Your task to perform on an android device: empty trash in google photos Image 0: 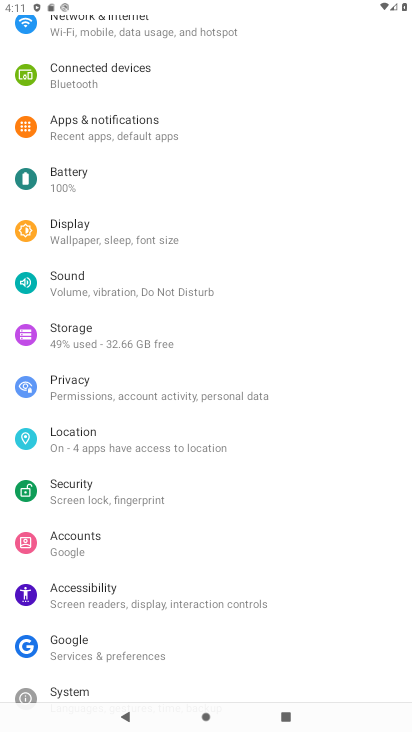
Step 0: press home button
Your task to perform on an android device: empty trash in google photos Image 1: 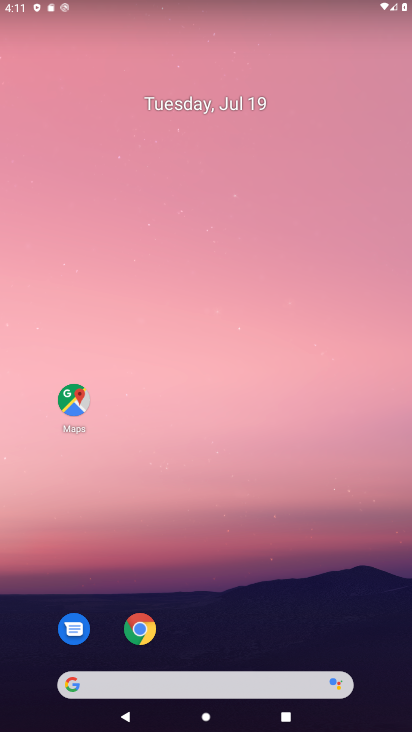
Step 1: drag from (163, 619) to (215, 201)
Your task to perform on an android device: empty trash in google photos Image 2: 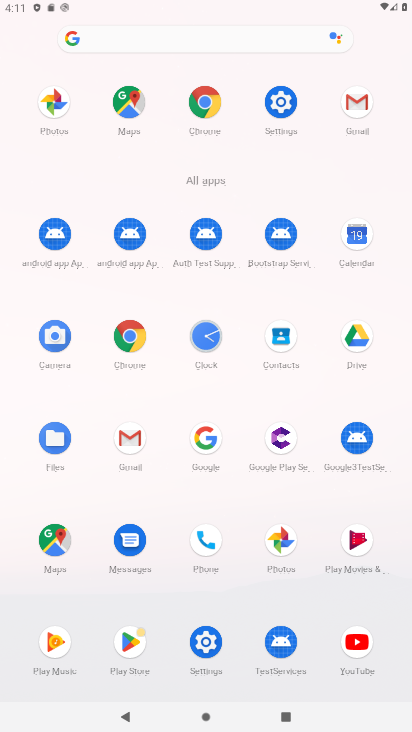
Step 2: click (282, 535)
Your task to perform on an android device: empty trash in google photos Image 3: 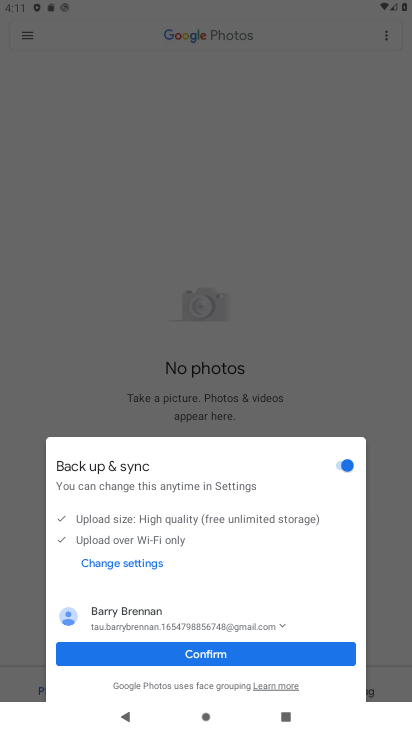
Step 3: click (199, 657)
Your task to perform on an android device: empty trash in google photos Image 4: 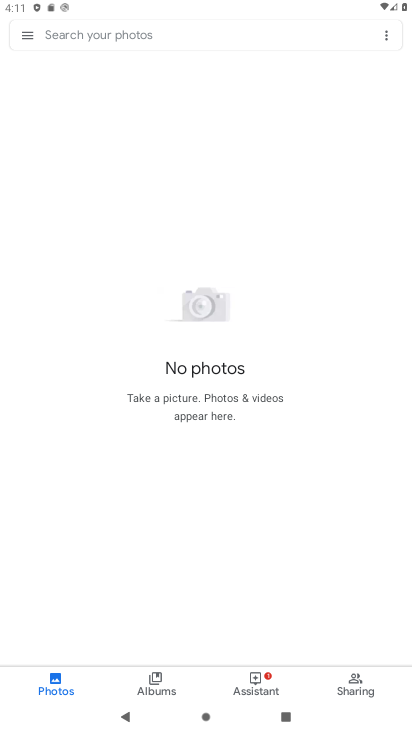
Step 4: click (34, 36)
Your task to perform on an android device: empty trash in google photos Image 5: 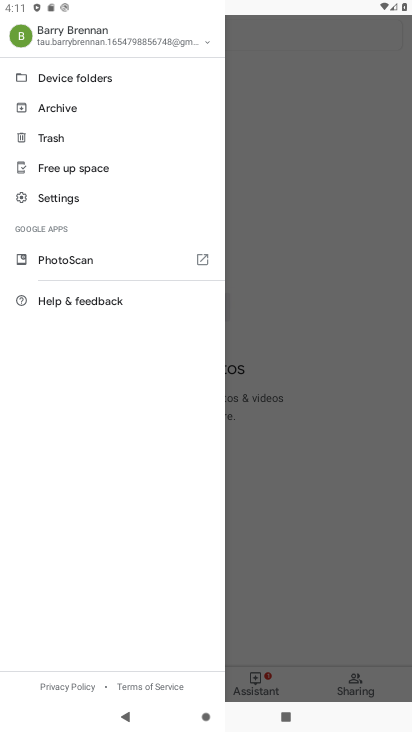
Step 5: click (49, 141)
Your task to perform on an android device: empty trash in google photos Image 6: 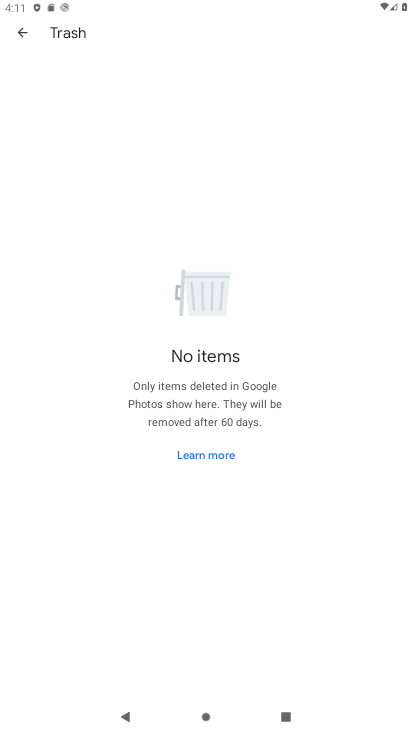
Step 6: task complete